Your task to perform on an android device: Search for the best-rated coffee table on Crate & Barrel Image 0: 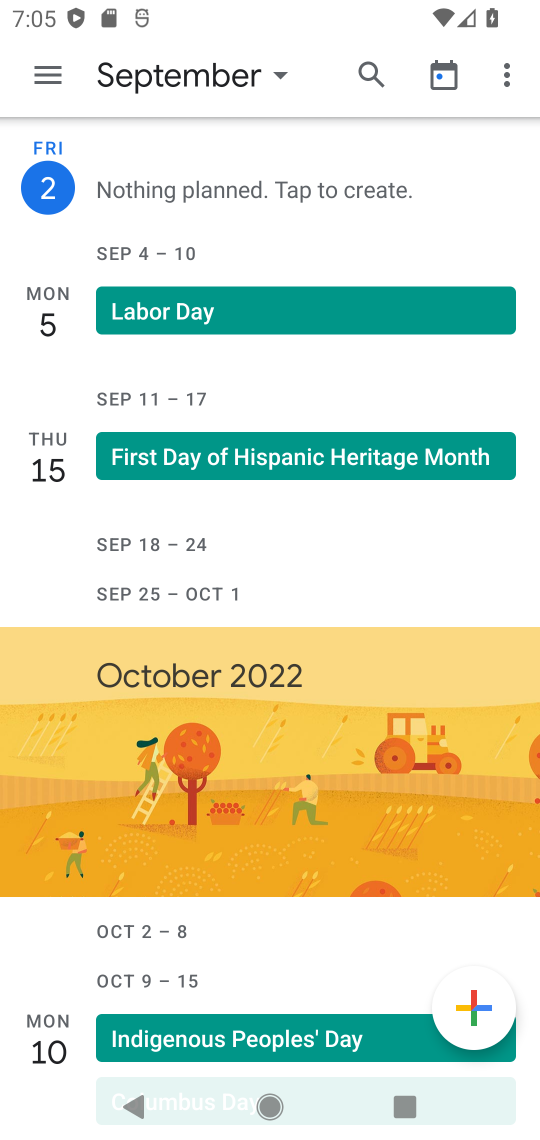
Step 0: press home button
Your task to perform on an android device: Search for the best-rated coffee table on Crate & Barrel Image 1: 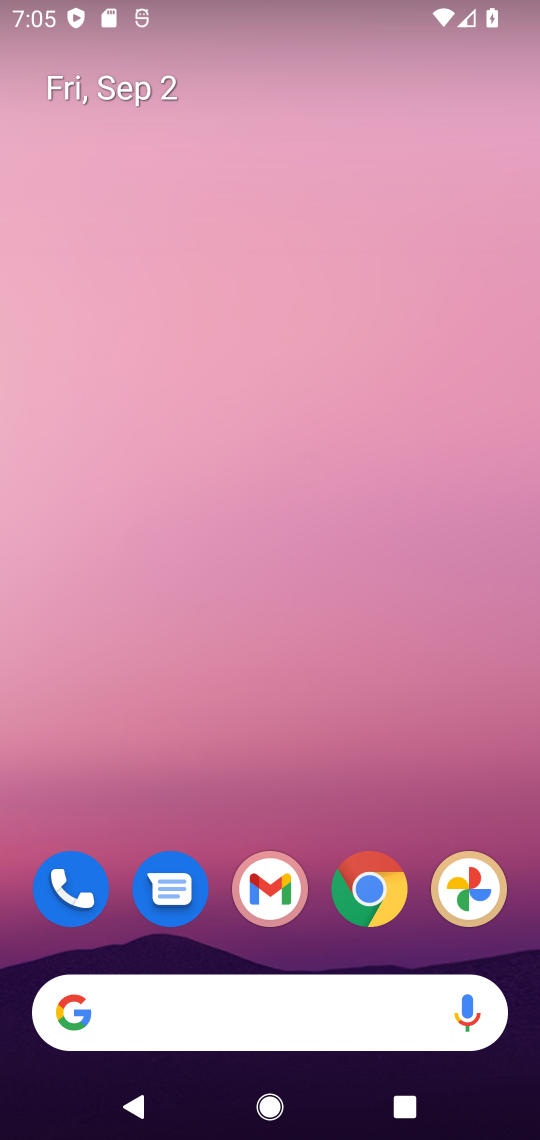
Step 1: click (329, 998)
Your task to perform on an android device: Search for the best-rated coffee table on Crate & Barrel Image 2: 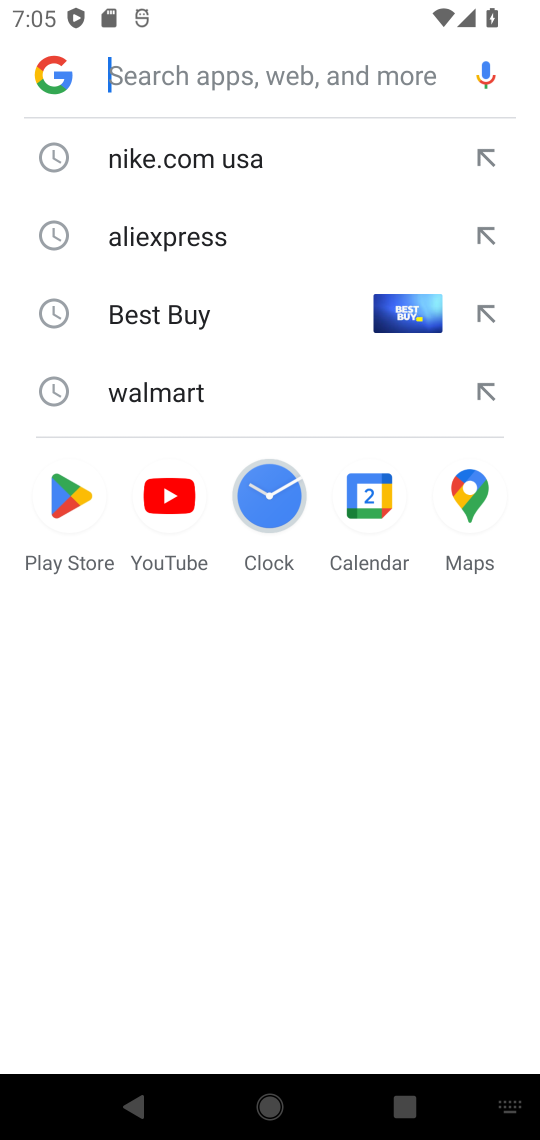
Step 2: type "Crate & Barrel"
Your task to perform on an android device: Search for the best-rated coffee table on Crate & Barrel Image 3: 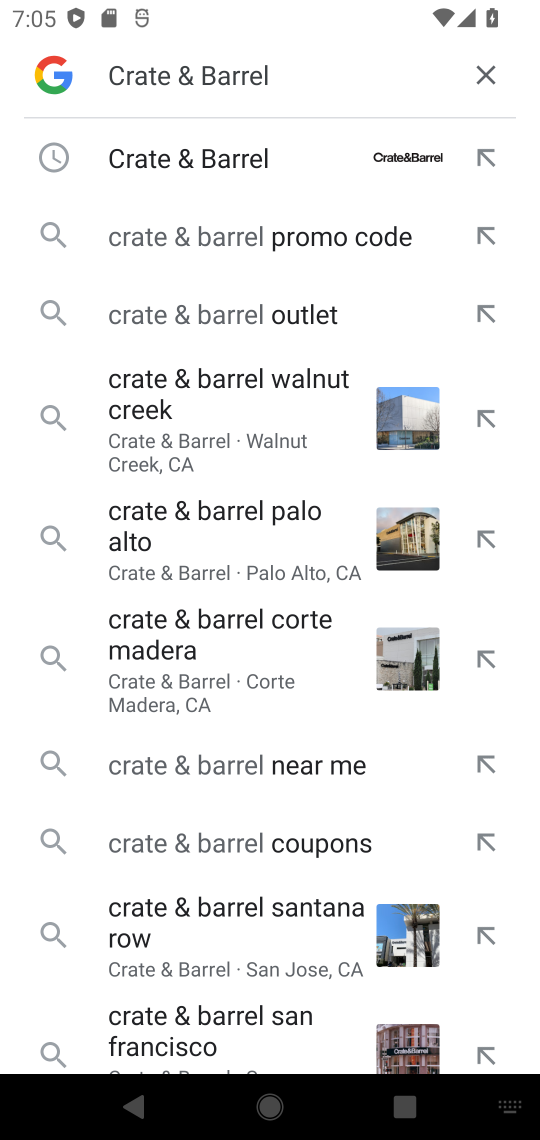
Step 3: click (173, 169)
Your task to perform on an android device: Search for the best-rated coffee table on Crate & Barrel Image 4: 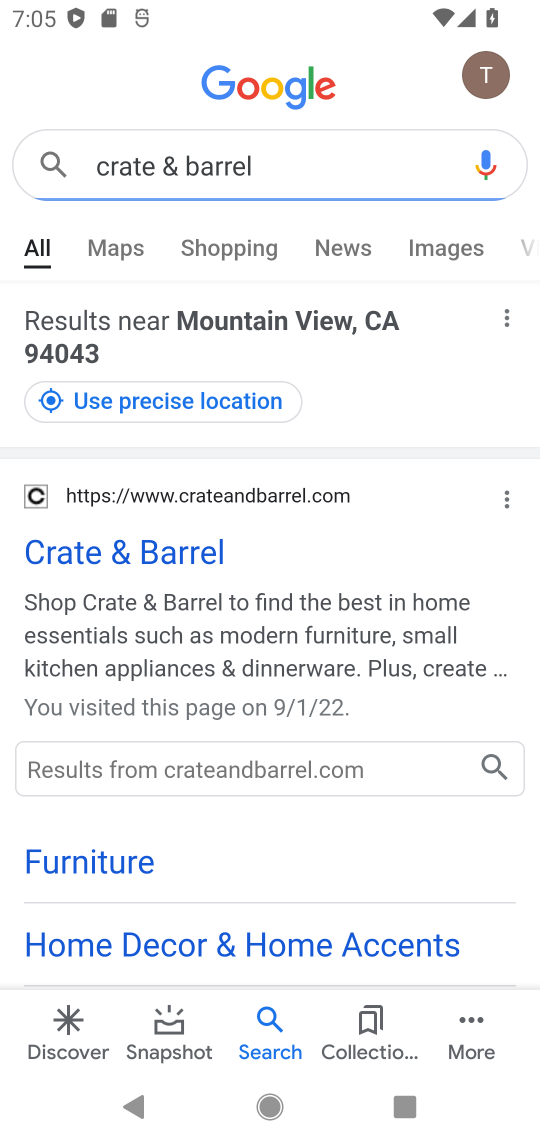
Step 4: click (134, 549)
Your task to perform on an android device: Search for the best-rated coffee table on Crate & Barrel Image 5: 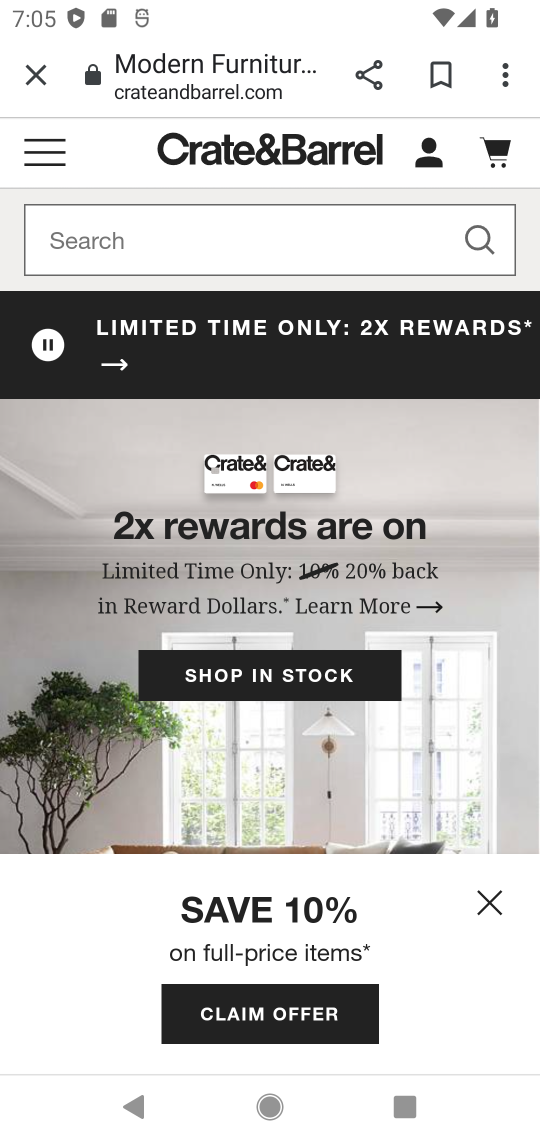
Step 5: click (163, 257)
Your task to perform on an android device: Search for the best-rated coffee table on Crate & Barrel Image 6: 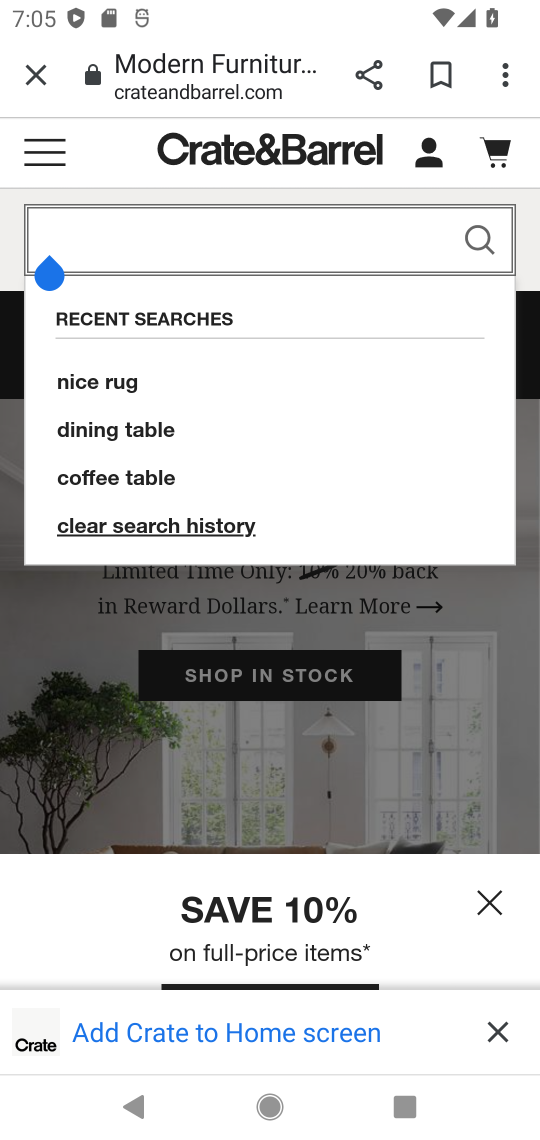
Step 6: type "coffee table"
Your task to perform on an android device: Search for the best-rated coffee table on Crate & Barrel Image 7: 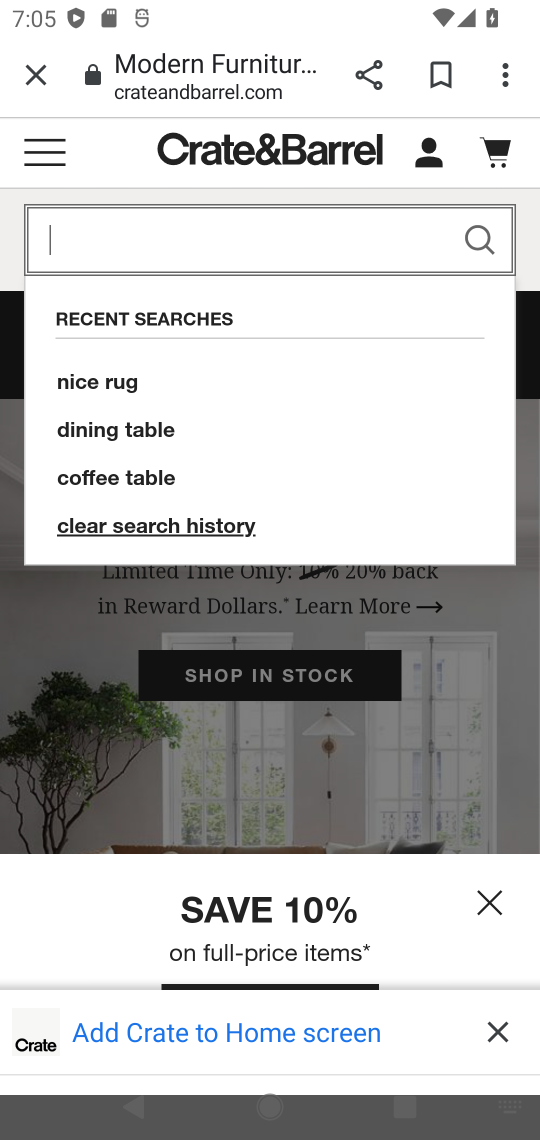
Step 7: type ""
Your task to perform on an android device: Search for the best-rated coffee table on Crate & Barrel Image 8: 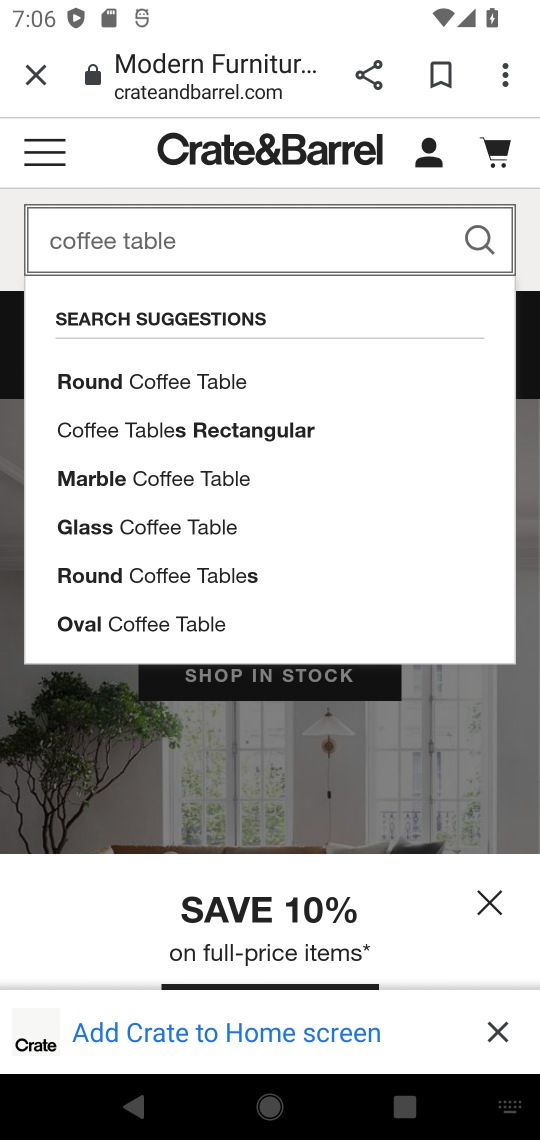
Step 8: click (485, 242)
Your task to perform on an android device: Search for the best-rated coffee table on Crate & Barrel Image 9: 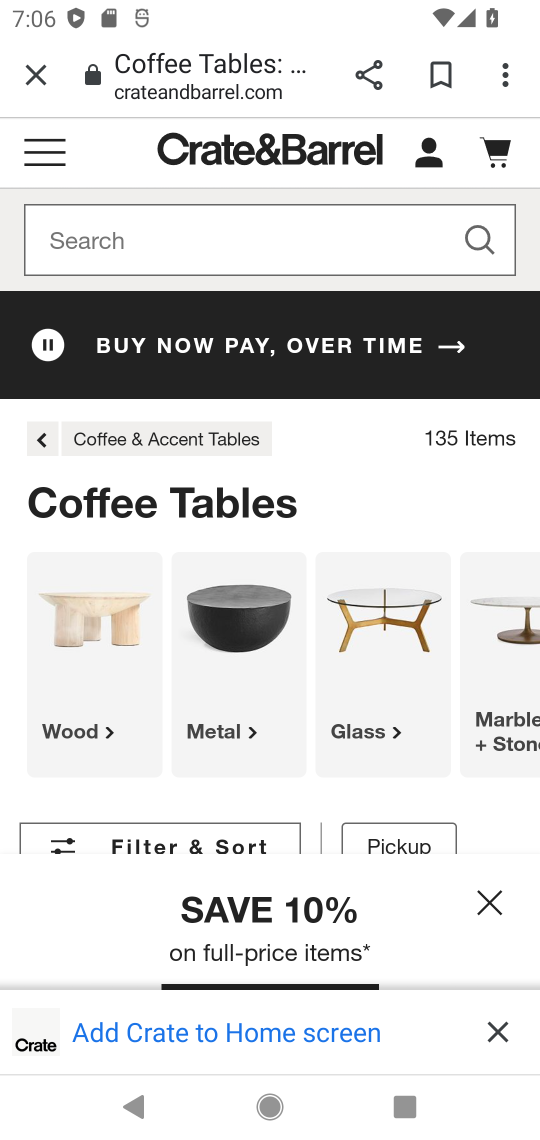
Step 9: click (199, 228)
Your task to perform on an android device: Search for the best-rated coffee table on Crate & Barrel Image 10: 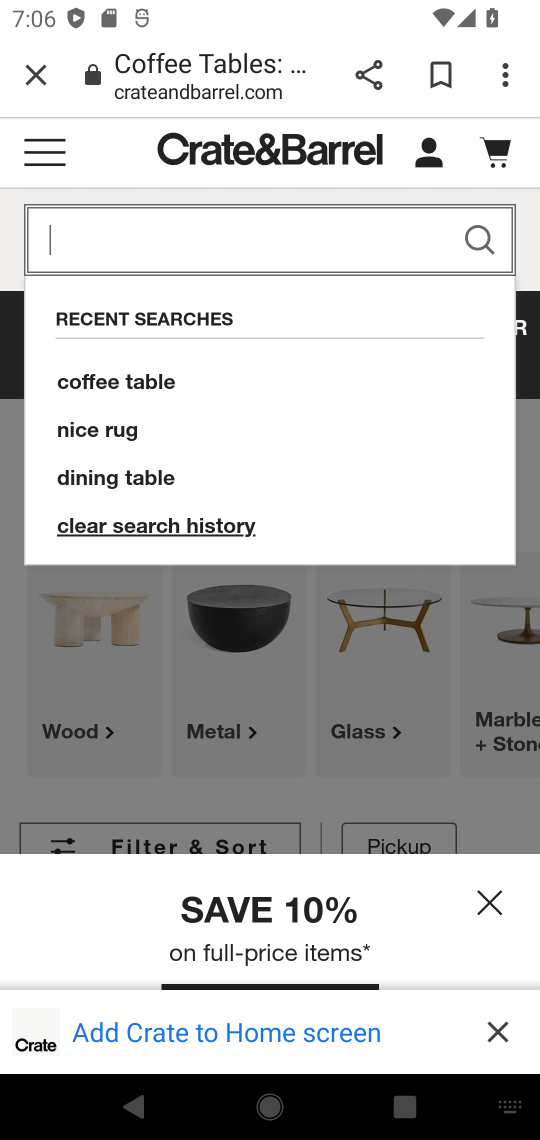
Step 10: click (241, 392)
Your task to perform on an android device: Search for the best-rated coffee table on Crate & Barrel Image 11: 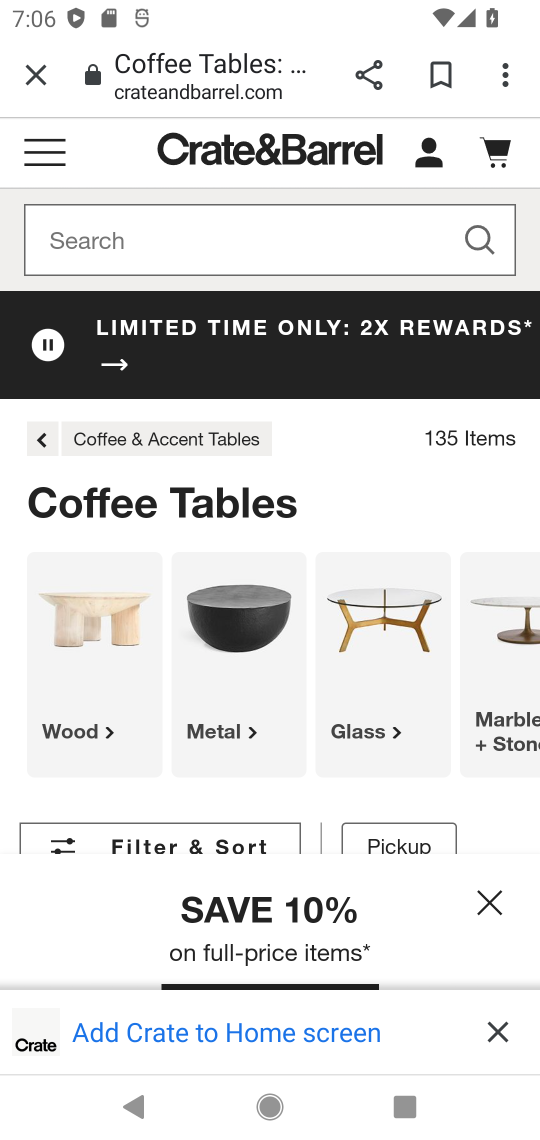
Step 11: task complete